Your task to perform on an android device: turn on the 12-hour format for clock Image 0: 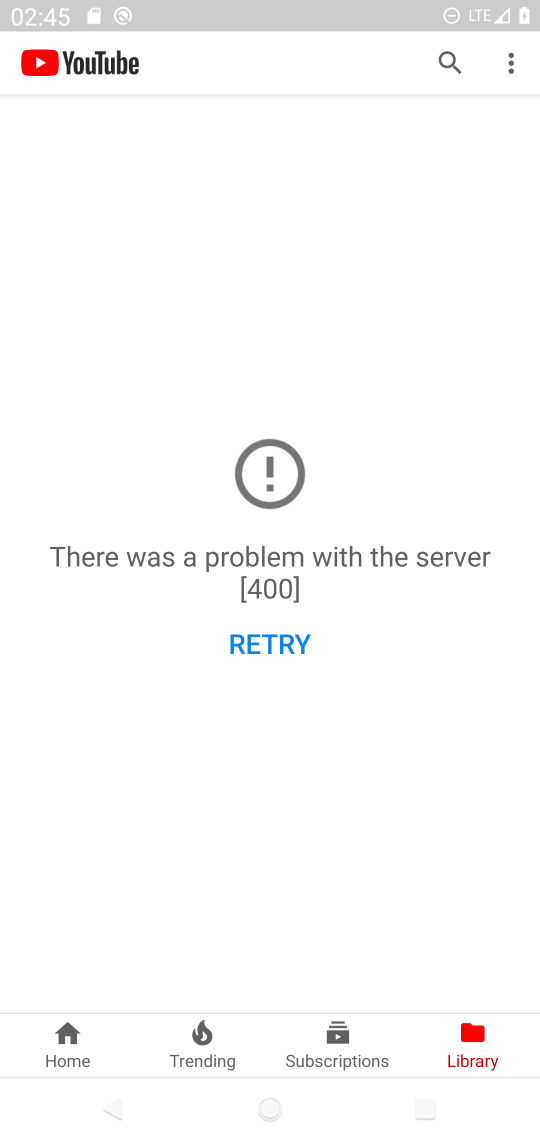
Step 0: press home button
Your task to perform on an android device: turn on the 12-hour format for clock Image 1: 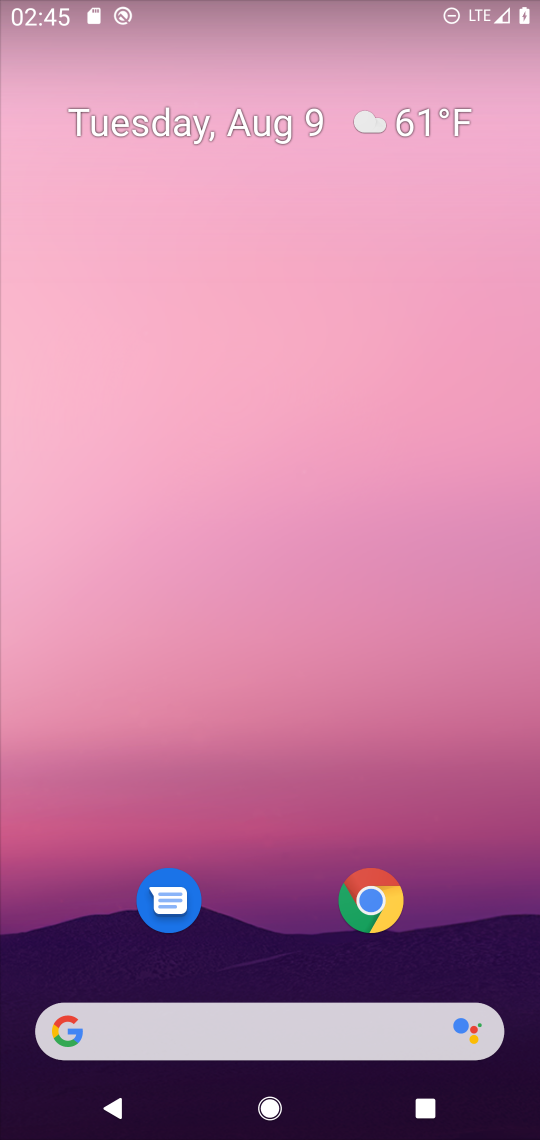
Step 1: drag from (270, 833) to (297, 258)
Your task to perform on an android device: turn on the 12-hour format for clock Image 2: 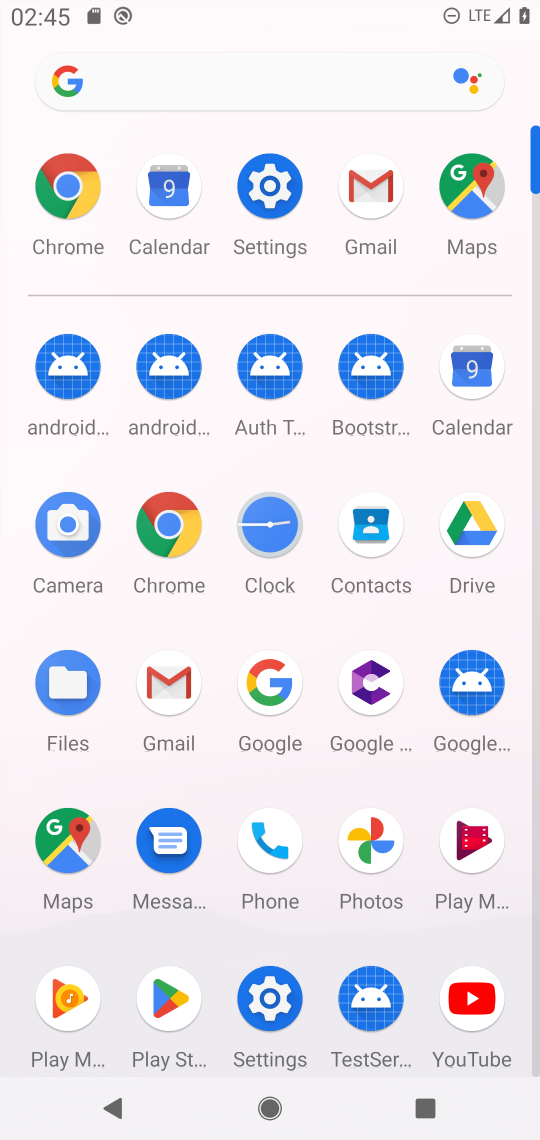
Step 2: click (275, 525)
Your task to perform on an android device: turn on the 12-hour format for clock Image 3: 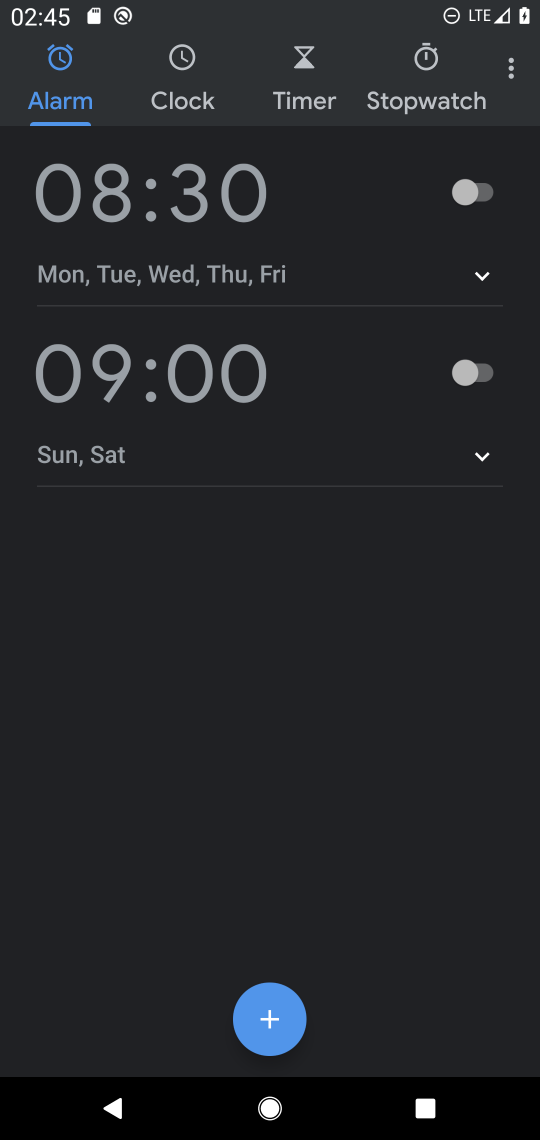
Step 3: click (511, 69)
Your task to perform on an android device: turn on the 12-hour format for clock Image 4: 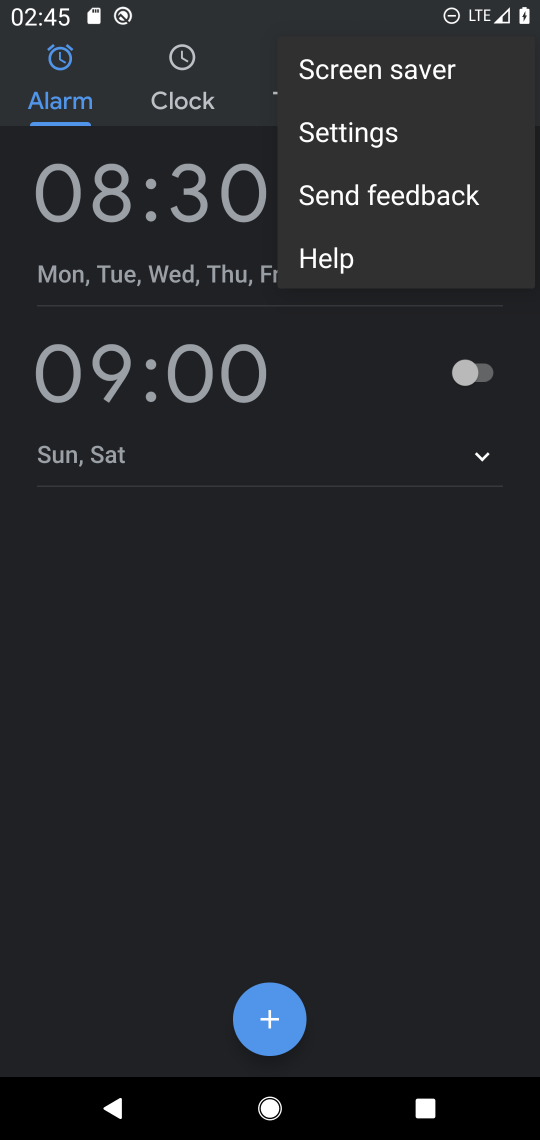
Step 4: click (385, 133)
Your task to perform on an android device: turn on the 12-hour format for clock Image 5: 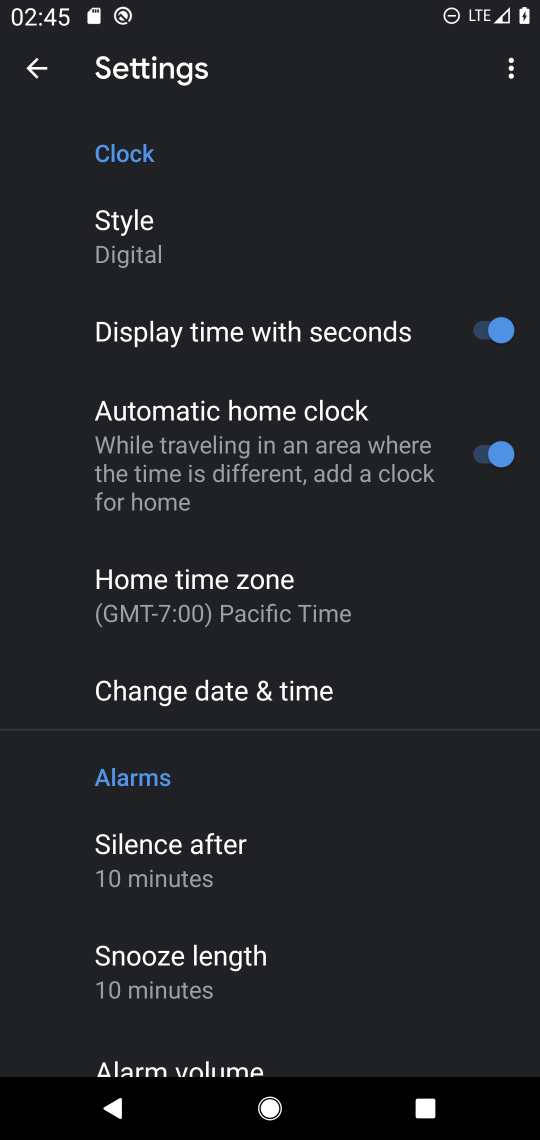
Step 5: click (353, 685)
Your task to perform on an android device: turn on the 12-hour format for clock Image 6: 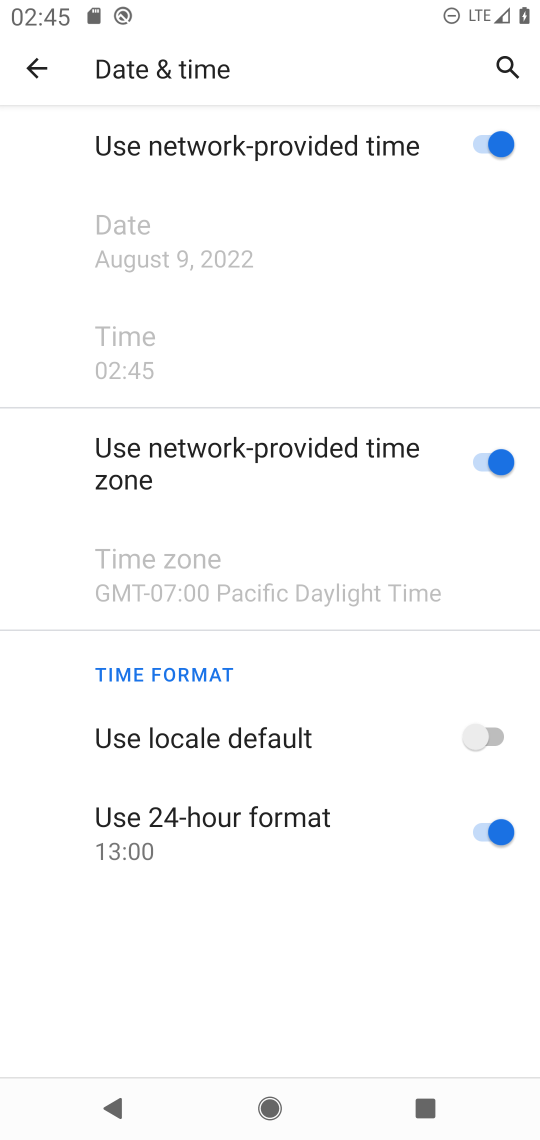
Step 6: click (491, 833)
Your task to perform on an android device: turn on the 12-hour format for clock Image 7: 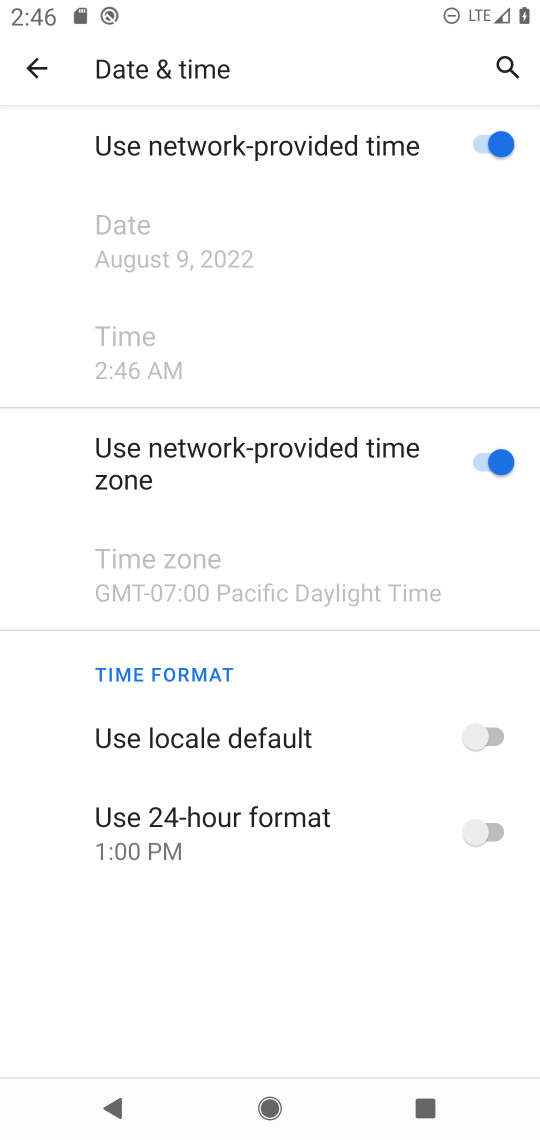
Step 7: task complete